Your task to perform on an android device: see tabs open on other devices in the chrome app Image 0: 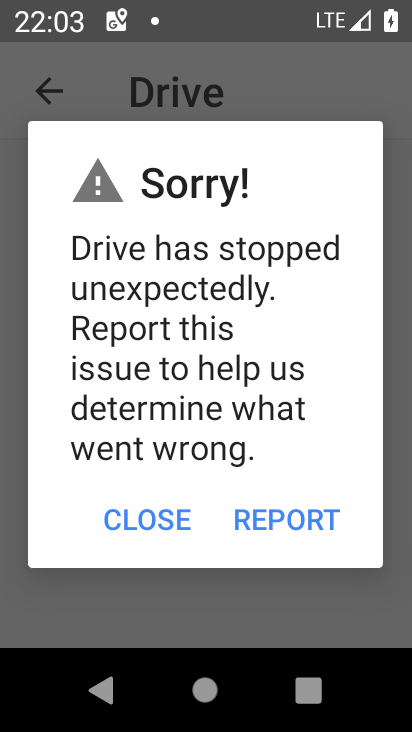
Step 0: press home button
Your task to perform on an android device: see tabs open on other devices in the chrome app Image 1: 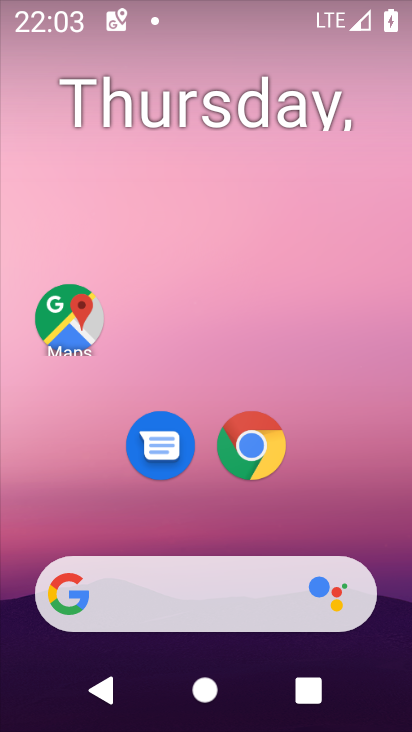
Step 1: drag from (255, 541) to (274, 254)
Your task to perform on an android device: see tabs open on other devices in the chrome app Image 2: 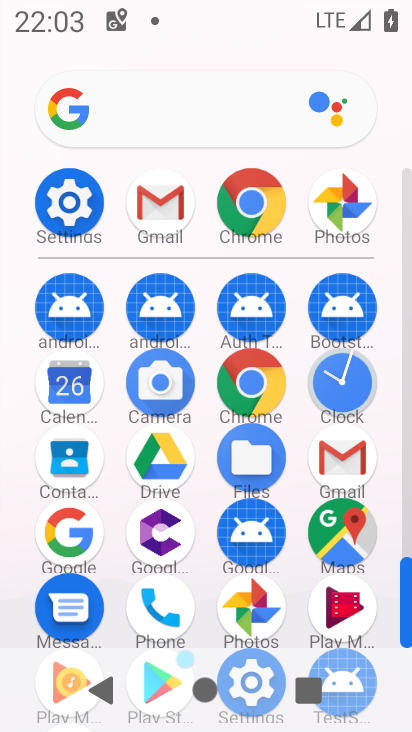
Step 2: click (240, 396)
Your task to perform on an android device: see tabs open on other devices in the chrome app Image 3: 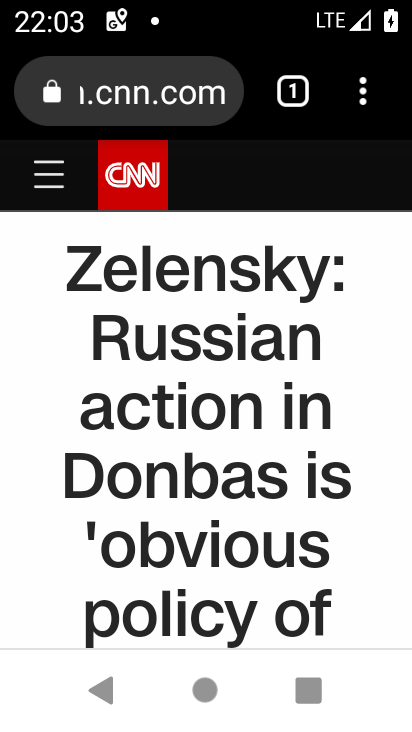
Step 3: click (369, 101)
Your task to perform on an android device: see tabs open on other devices in the chrome app Image 4: 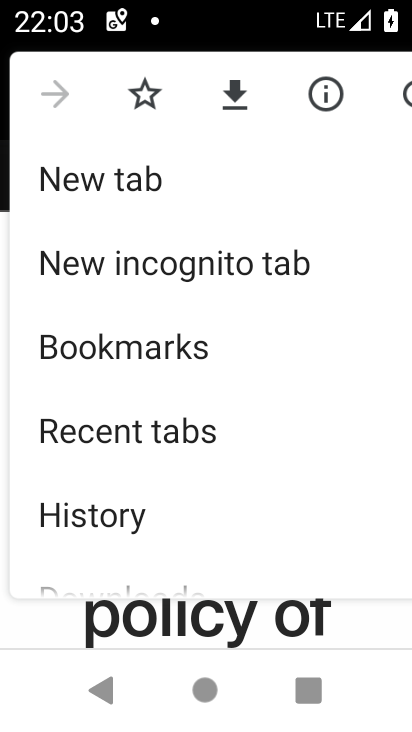
Step 4: click (204, 433)
Your task to perform on an android device: see tabs open on other devices in the chrome app Image 5: 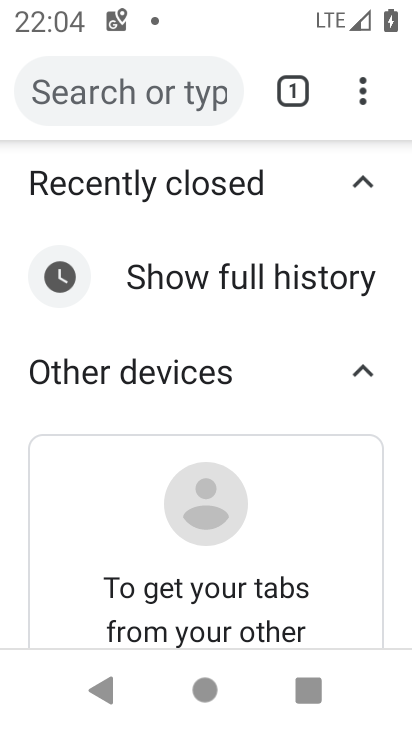
Step 5: click (336, 384)
Your task to perform on an android device: see tabs open on other devices in the chrome app Image 6: 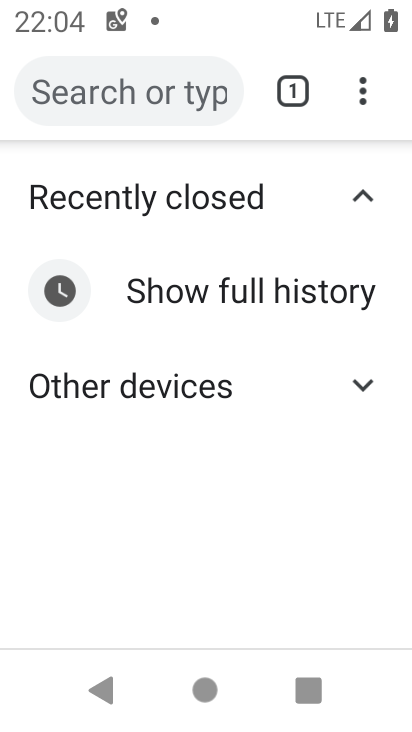
Step 6: click (336, 384)
Your task to perform on an android device: see tabs open on other devices in the chrome app Image 7: 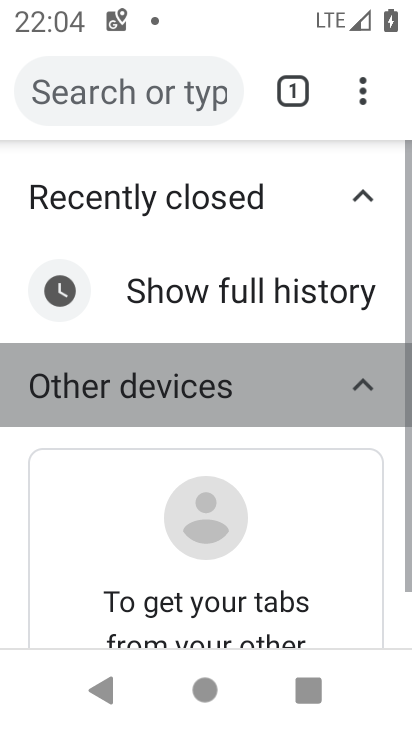
Step 7: drag from (166, 413) to (200, 85)
Your task to perform on an android device: see tabs open on other devices in the chrome app Image 8: 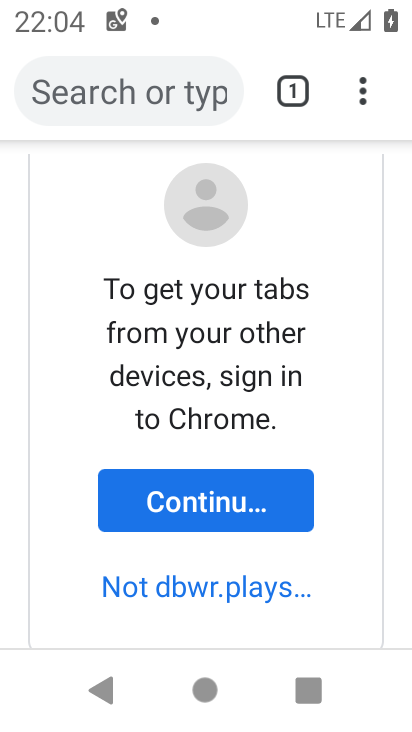
Step 8: click (196, 505)
Your task to perform on an android device: see tabs open on other devices in the chrome app Image 9: 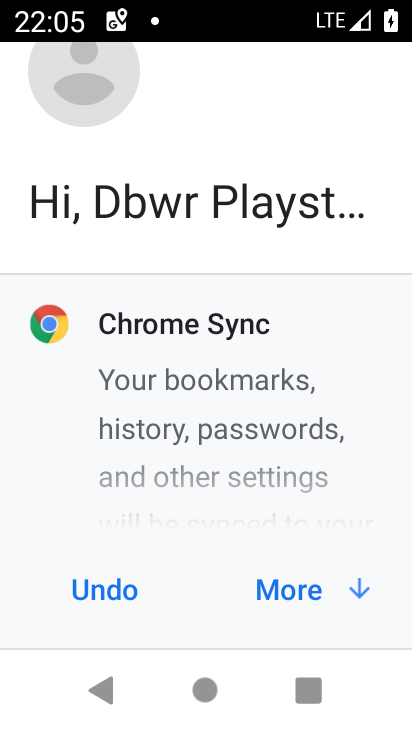
Step 9: click (279, 594)
Your task to perform on an android device: see tabs open on other devices in the chrome app Image 10: 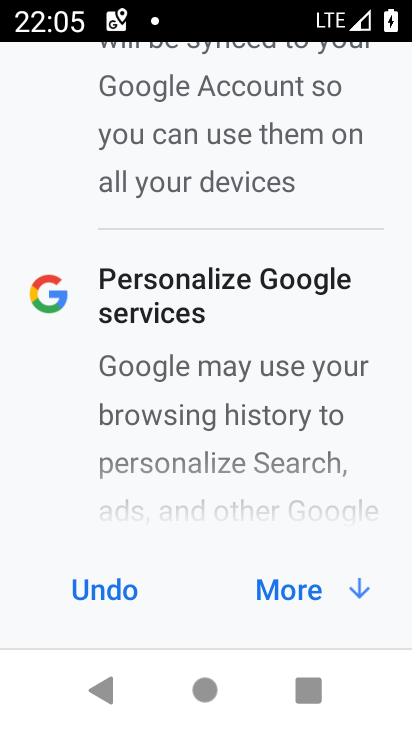
Step 10: click (280, 593)
Your task to perform on an android device: see tabs open on other devices in the chrome app Image 11: 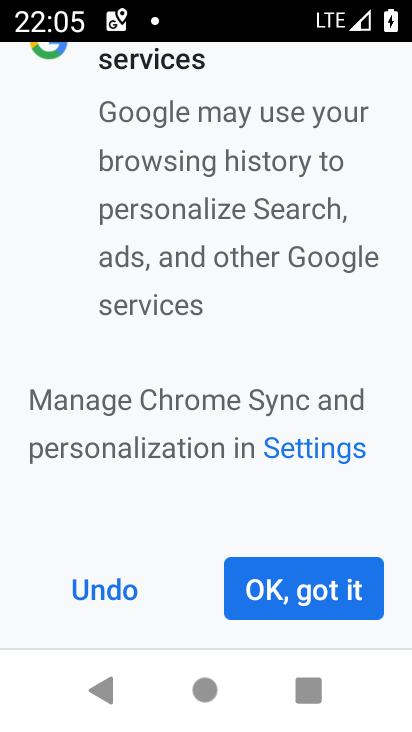
Step 11: click (280, 593)
Your task to perform on an android device: see tabs open on other devices in the chrome app Image 12: 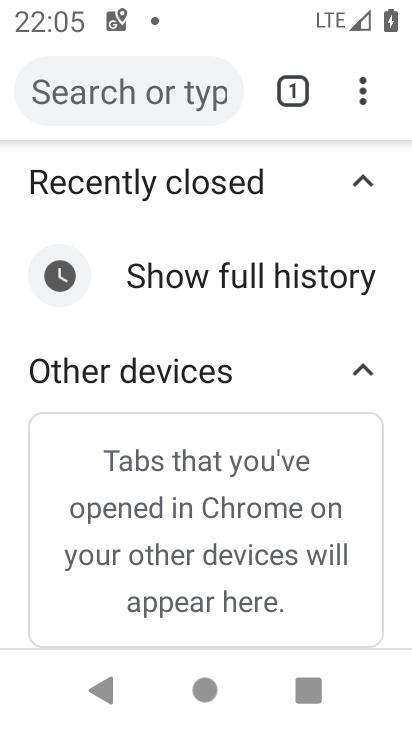
Step 12: click (350, 387)
Your task to perform on an android device: see tabs open on other devices in the chrome app Image 13: 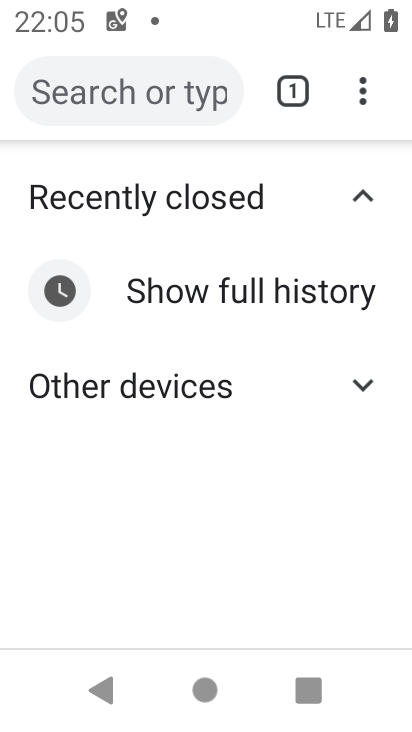
Step 13: click (350, 386)
Your task to perform on an android device: see tabs open on other devices in the chrome app Image 14: 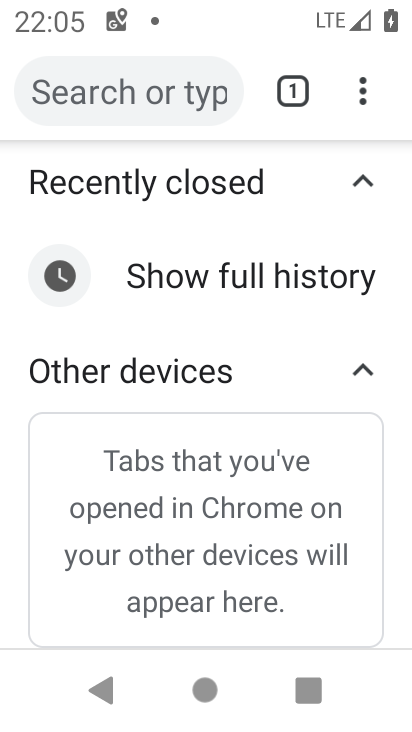
Step 14: drag from (313, 542) to (283, 299)
Your task to perform on an android device: see tabs open on other devices in the chrome app Image 15: 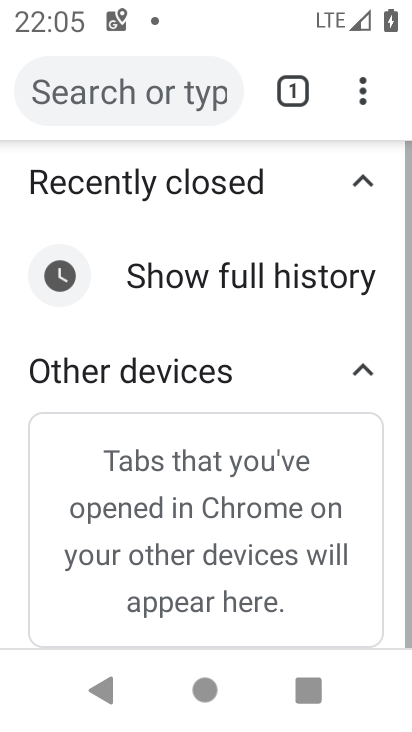
Step 15: click (365, 376)
Your task to perform on an android device: see tabs open on other devices in the chrome app Image 16: 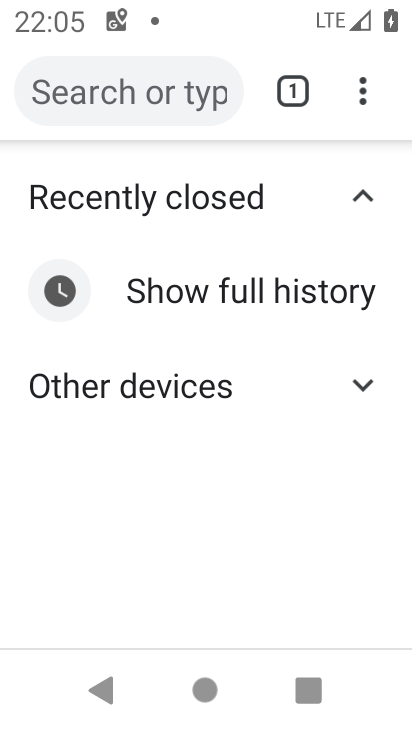
Step 16: click (365, 376)
Your task to perform on an android device: see tabs open on other devices in the chrome app Image 17: 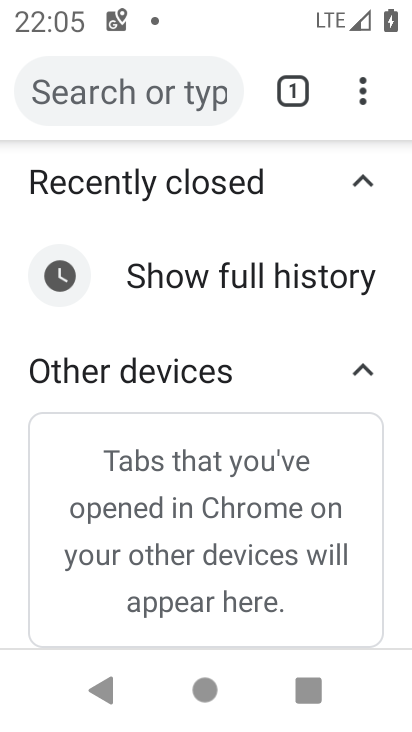
Step 17: click (337, 372)
Your task to perform on an android device: see tabs open on other devices in the chrome app Image 18: 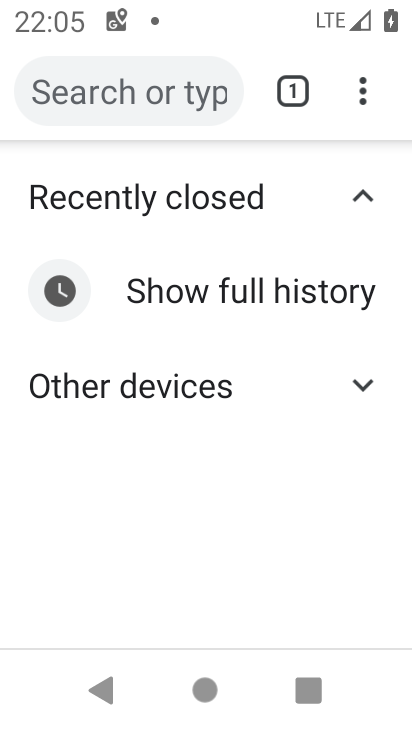
Step 18: click (337, 372)
Your task to perform on an android device: see tabs open on other devices in the chrome app Image 19: 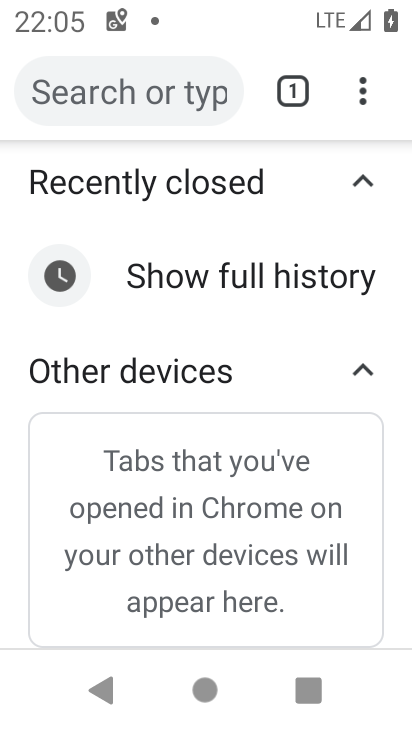
Step 19: drag from (282, 537) to (273, 323)
Your task to perform on an android device: see tabs open on other devices in the chrome app Image 20: 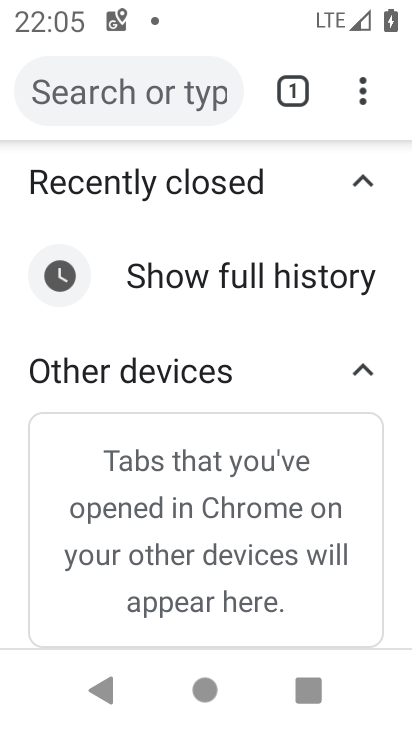
Step 20: drag from (222, 523) to (281, 347)
Your task to perform on an android device: see tabs open on other devices in the chrome app Image 21: 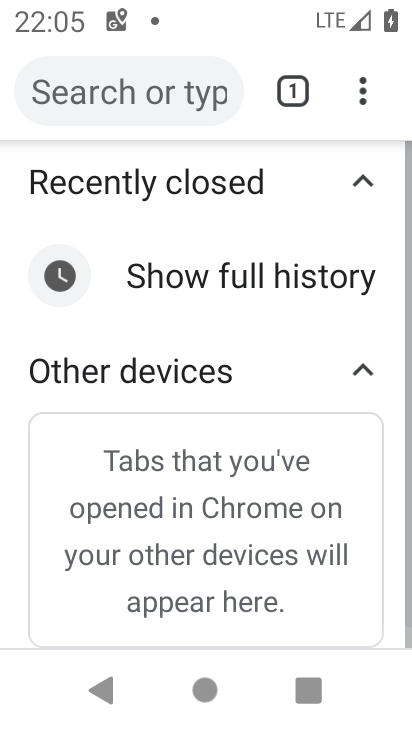
Step 21: click (319, 378)
Your task to perform on an android device: see tabs open on other devices in the chrome app Image 22: 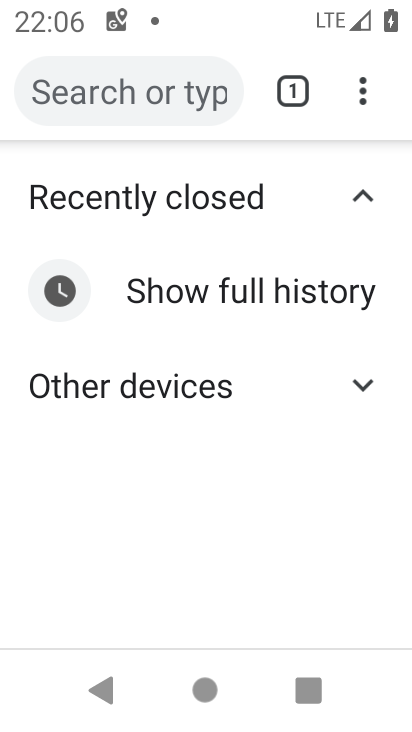
Step 22: task complete